Your task to perform on an android device: toggle wifi Image 0: 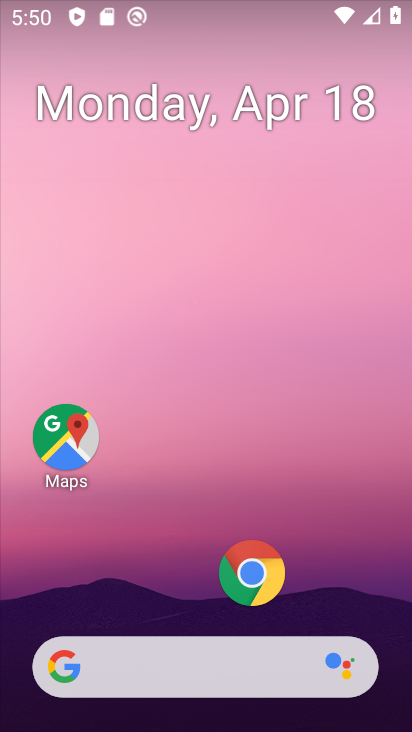
Step 0: drag from (189, 621) to (255, 246)
Your task to perform on an android device: toggle wifi Image 1: 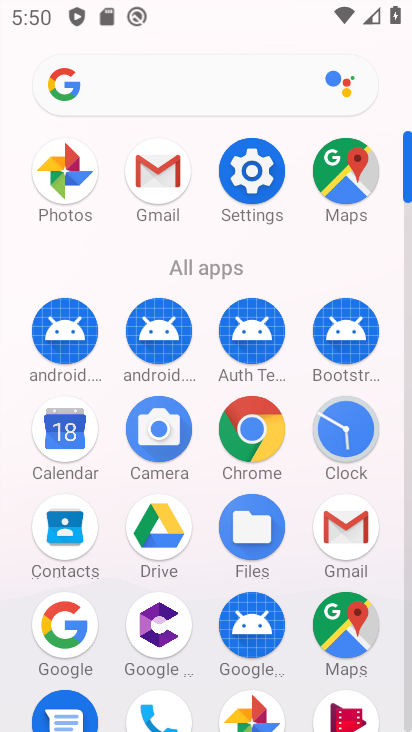
Step 1: click (259, 192)
Your task to perform on an android device: toggle wifi Image 2: 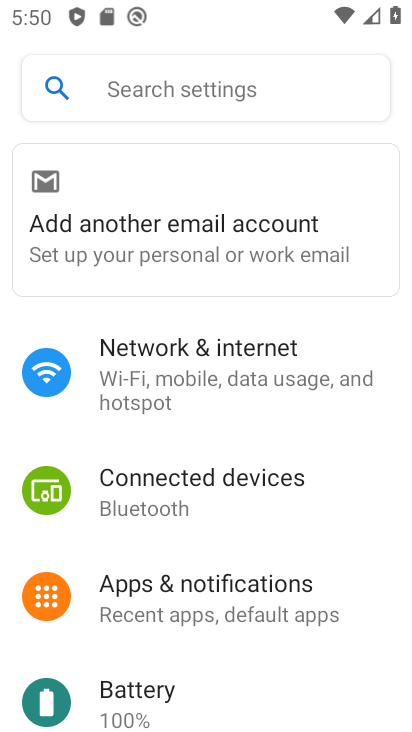
Step 2: click (217, 348)
Your task to perform on an android device: toggle wifi Image 3: 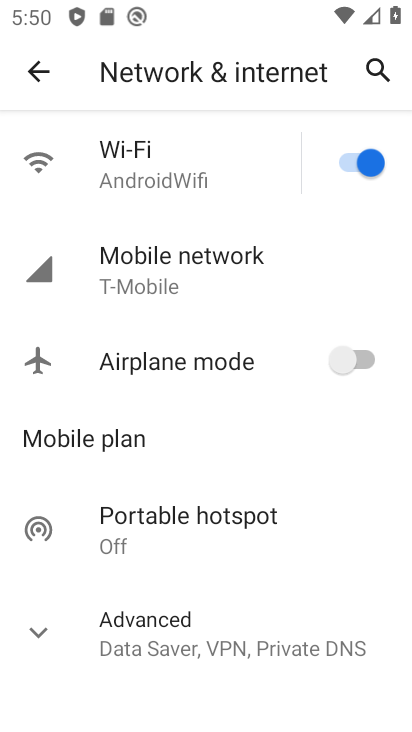
Step 3: click (364, 154)
Your task to perform on an android device: toggle wifi Image 4: 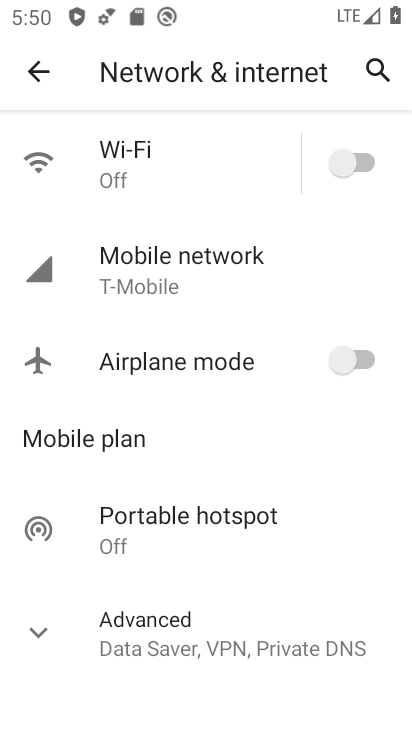
Step 4: task complete